Your task to perform on an android device: open app "Facebook Lite" Image 0: 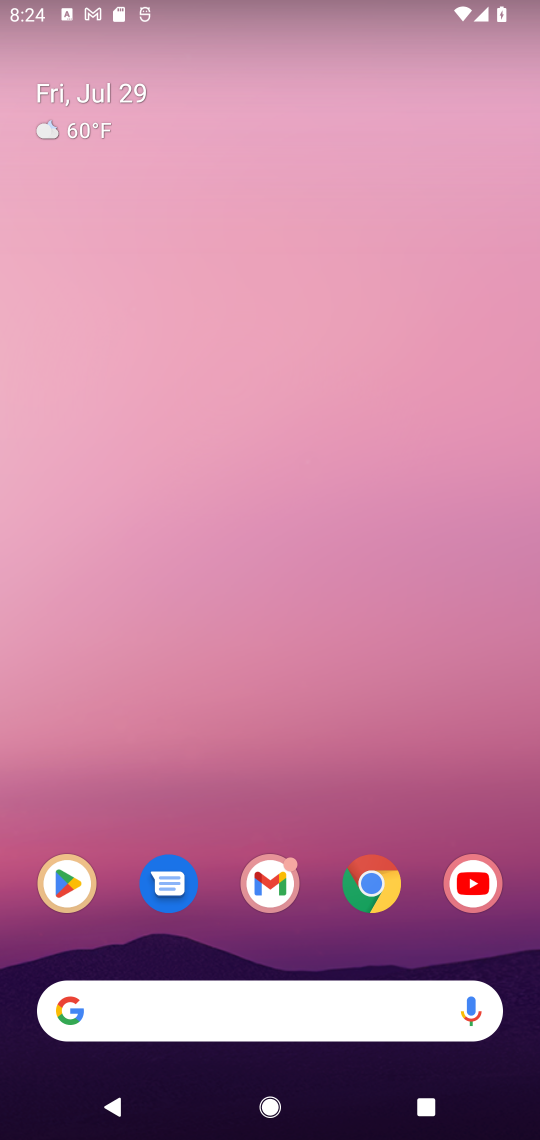
Step 0: drag from (168, 939) to (319, 25)
Your task to perform on an android device: open app "Facebook Lite" Image 1: 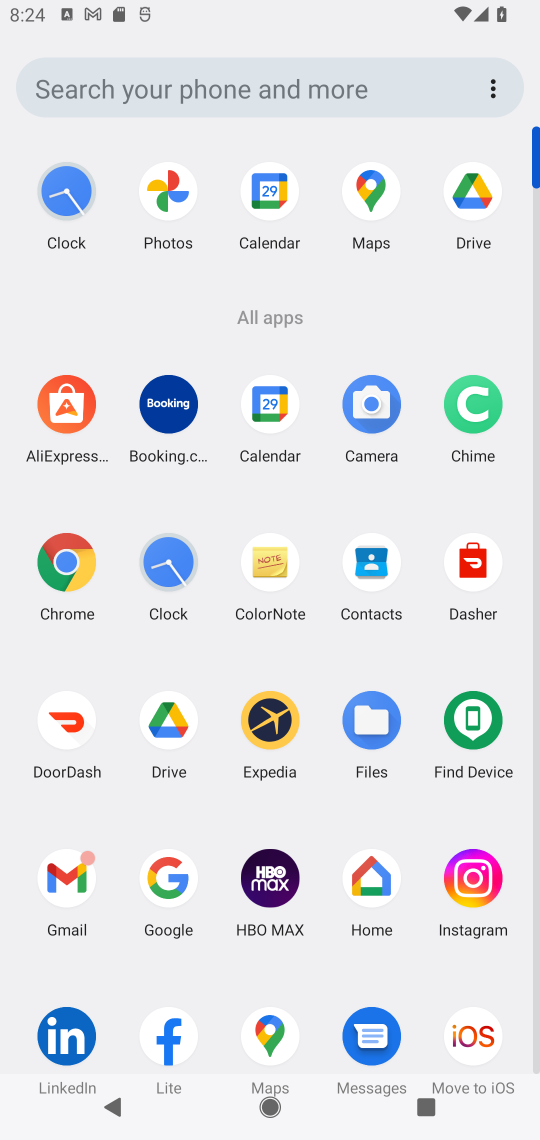
Step 1: click (174, 1046)
Your task to perform on an android device: open app "Facebook Lite" Image 2: 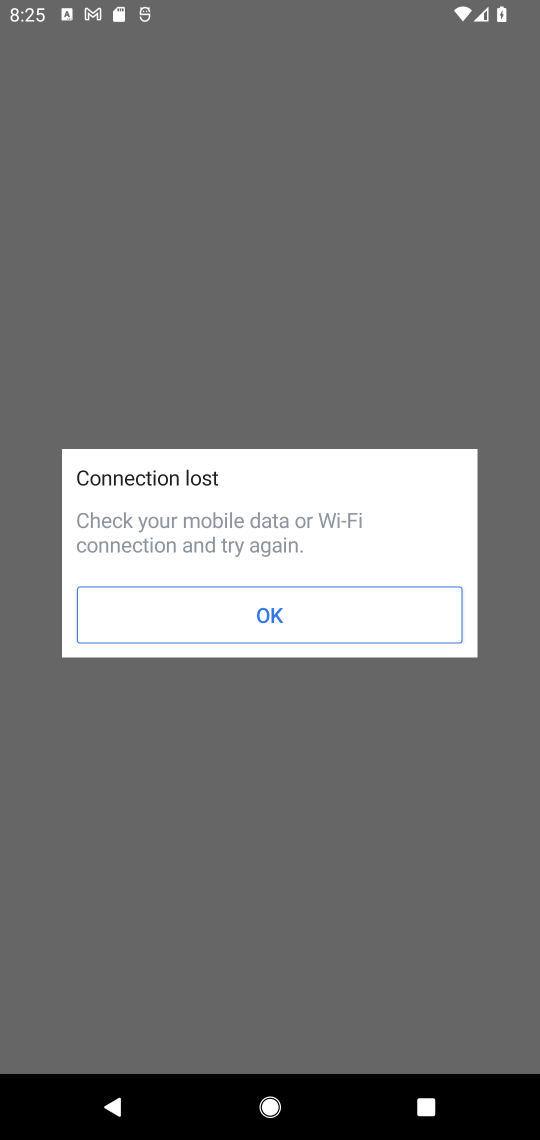
Step 2: press back button
Your task to perform on an android device: open app "Facebook Lite" Image 3: 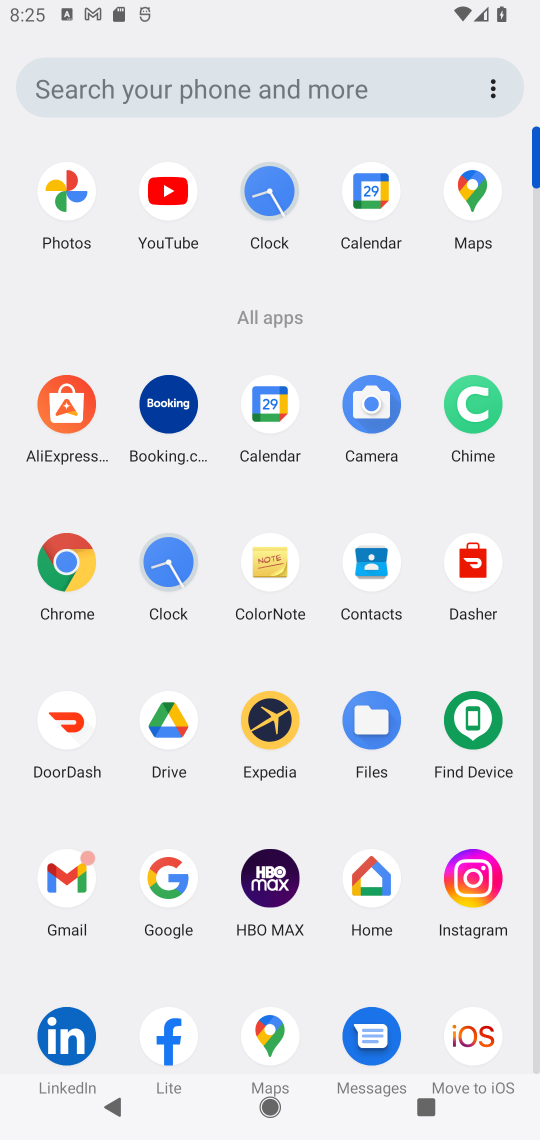
Step 3: click (154, 1054)
Your task to perform on an android device: open app "Facebook Lite" Image 4: 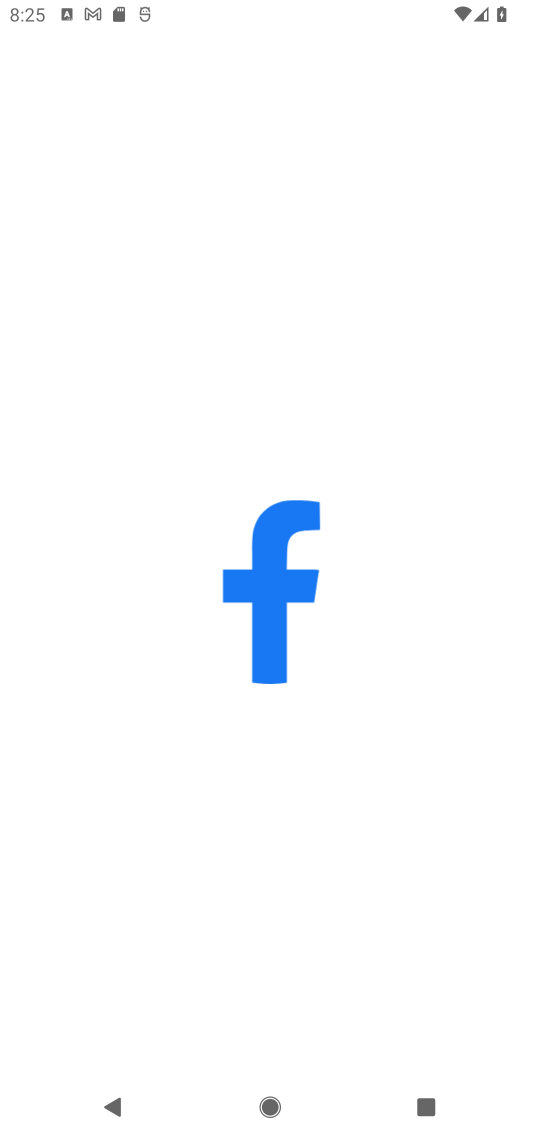
Step 4: task complete